Your task to perform on an android device: open a bookmark in the chrome app Image 0: 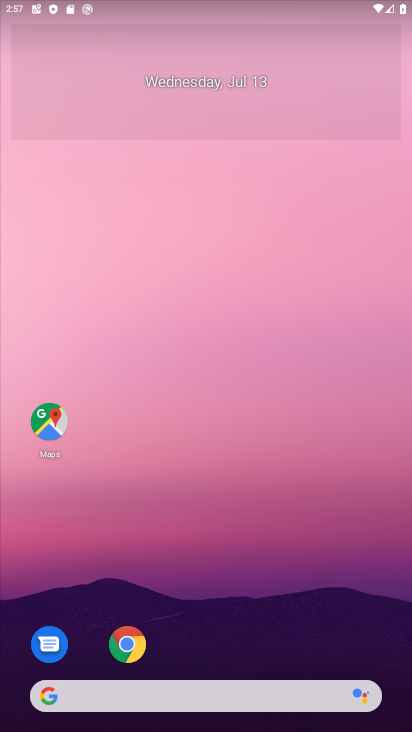
Step 0: drag from (281, 594) to (273, 170)
Your task to perform on an android device: open a bookmark in the chrome app Image 1: 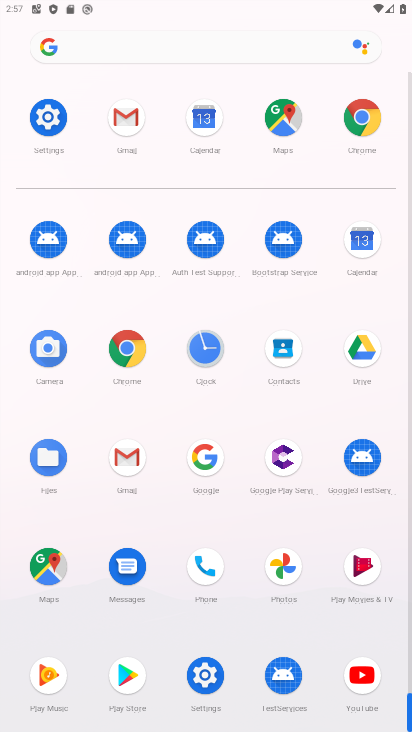
Step 1: click (367, 116)
Your task to perform on an android device: open a bookmark in the chrome app Image 2: 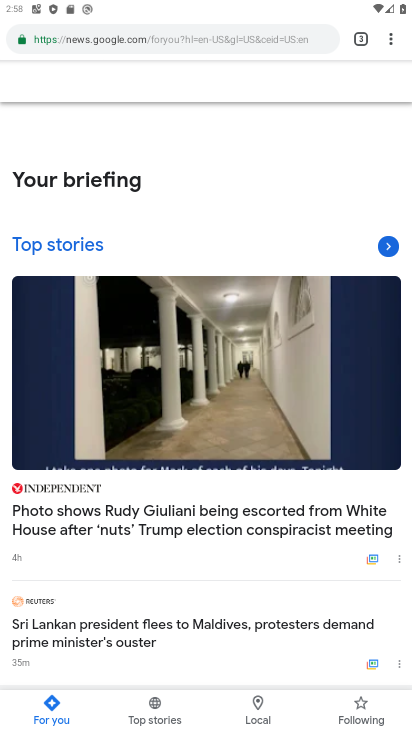
Step 2: drag from (394, 40) to (287, 151)
Your task to perform on an android device: open a bookmark in the chrome app Image 3: 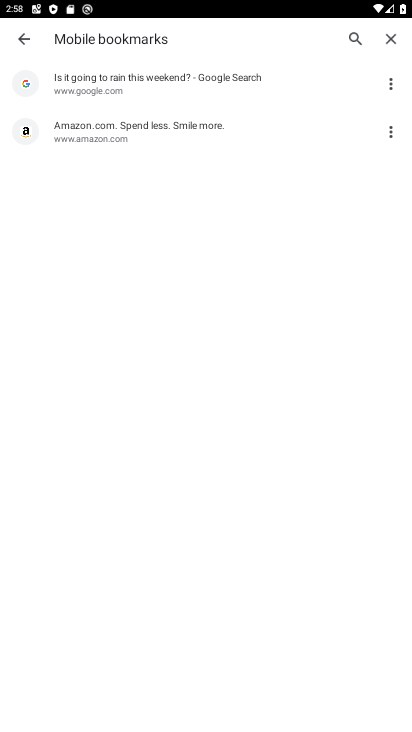
Step 3: click (151, 134)
Your task to perform on an android device: open a bookmark in the chrome app Image 4: 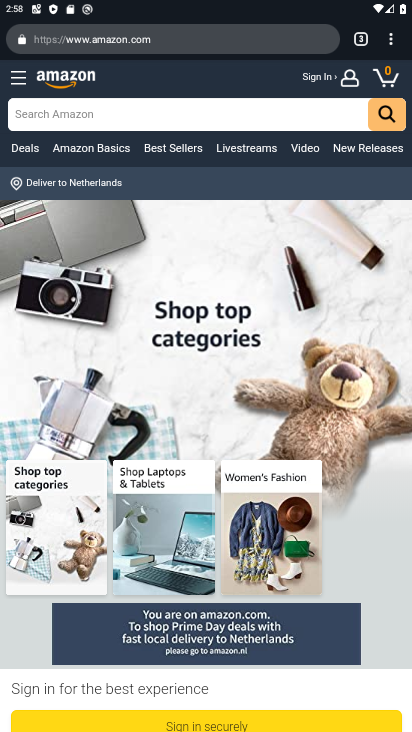
Step 4: task complete